Your task to perform on an android device: Open sound settings Image 0: 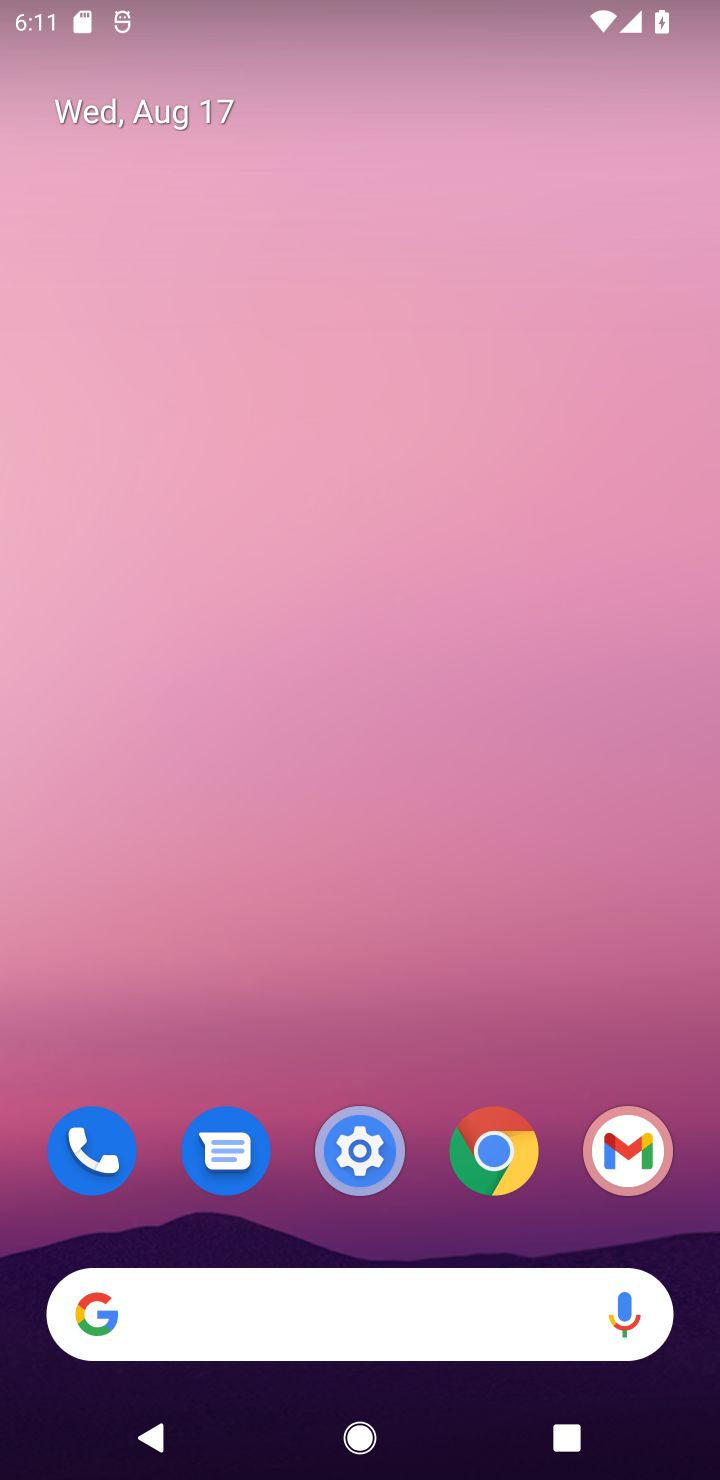
Step 0: click (334, 1142)
Your task to perform on an android device: Open sound settings Image 1: 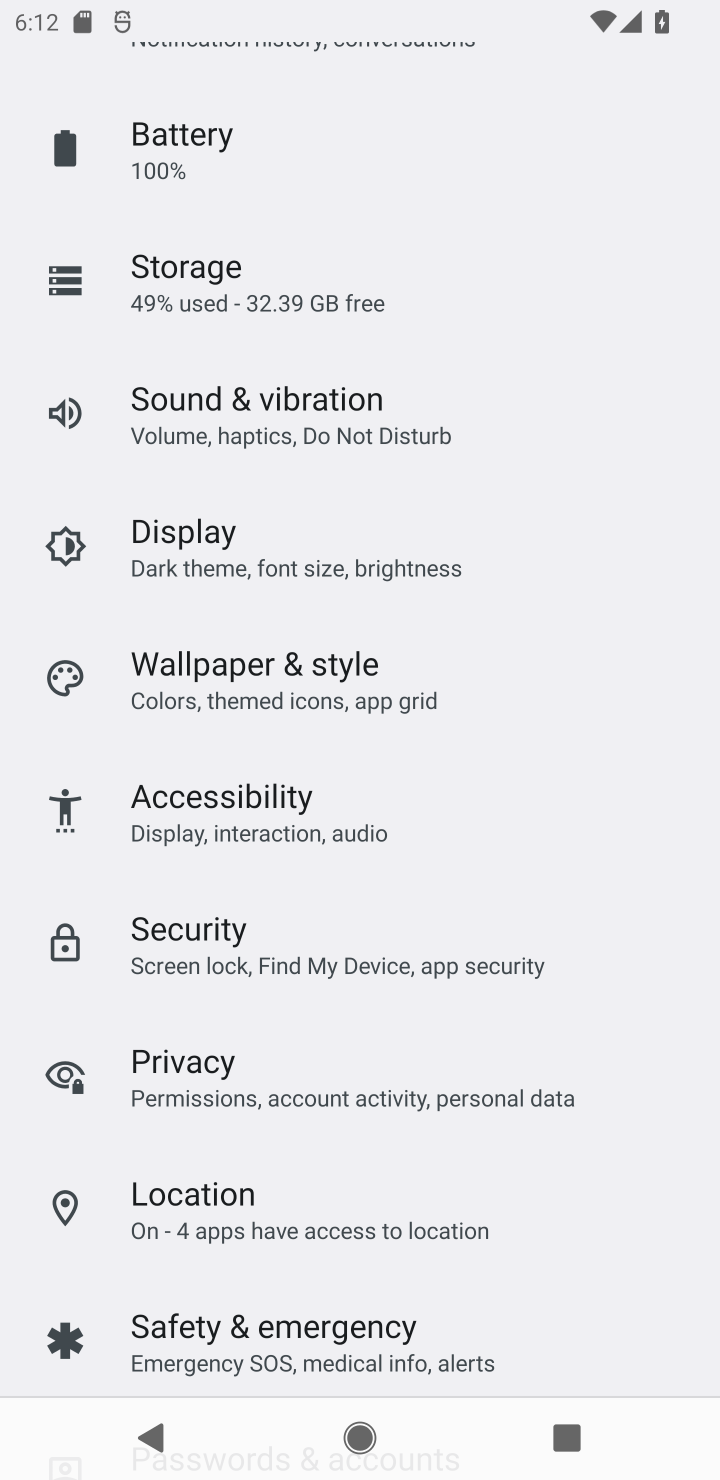
Step 1: drag from (236, 269) to (338, 1328)
Your task to perform on an android device: Open sound settings Image 2: 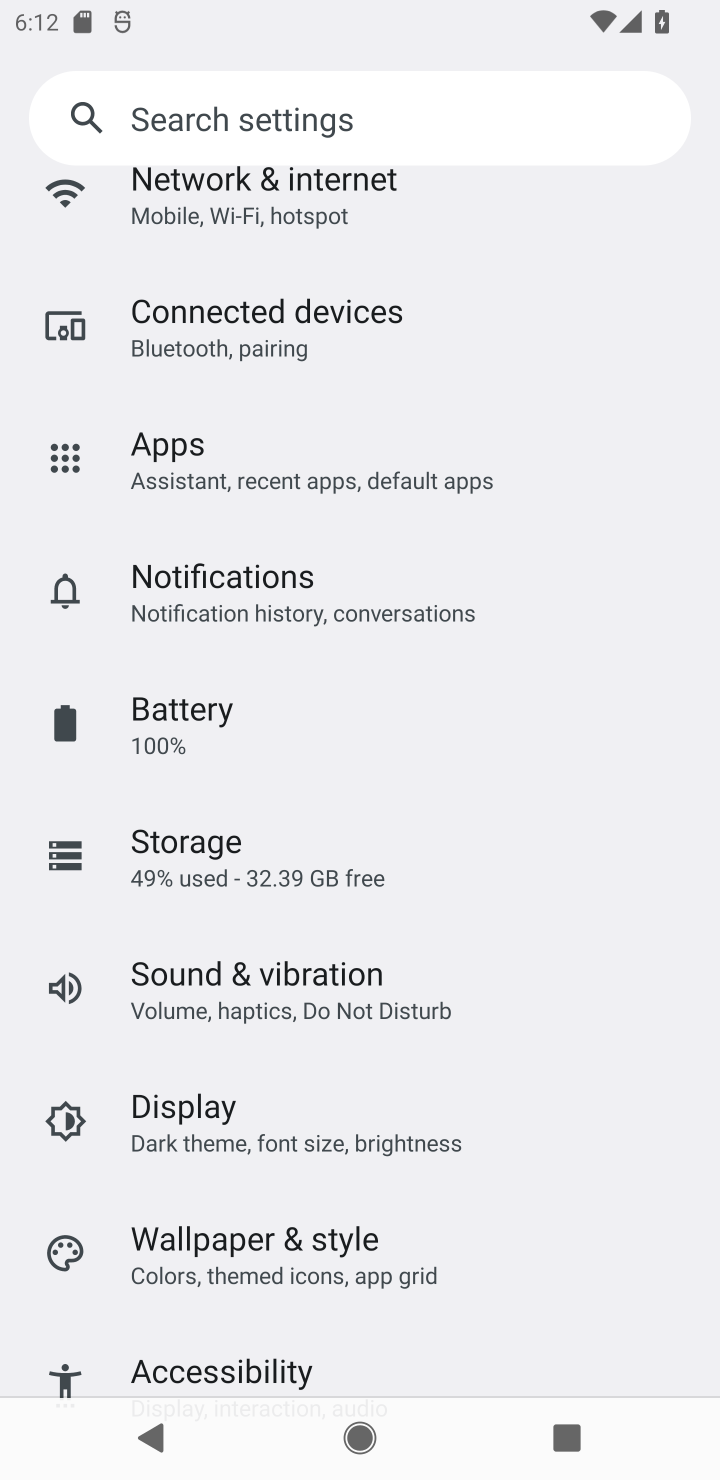
Step 2: drag from (270, 1210) to (367, 1086)
Your task to perform on an android device: Open sound settings Image 3: 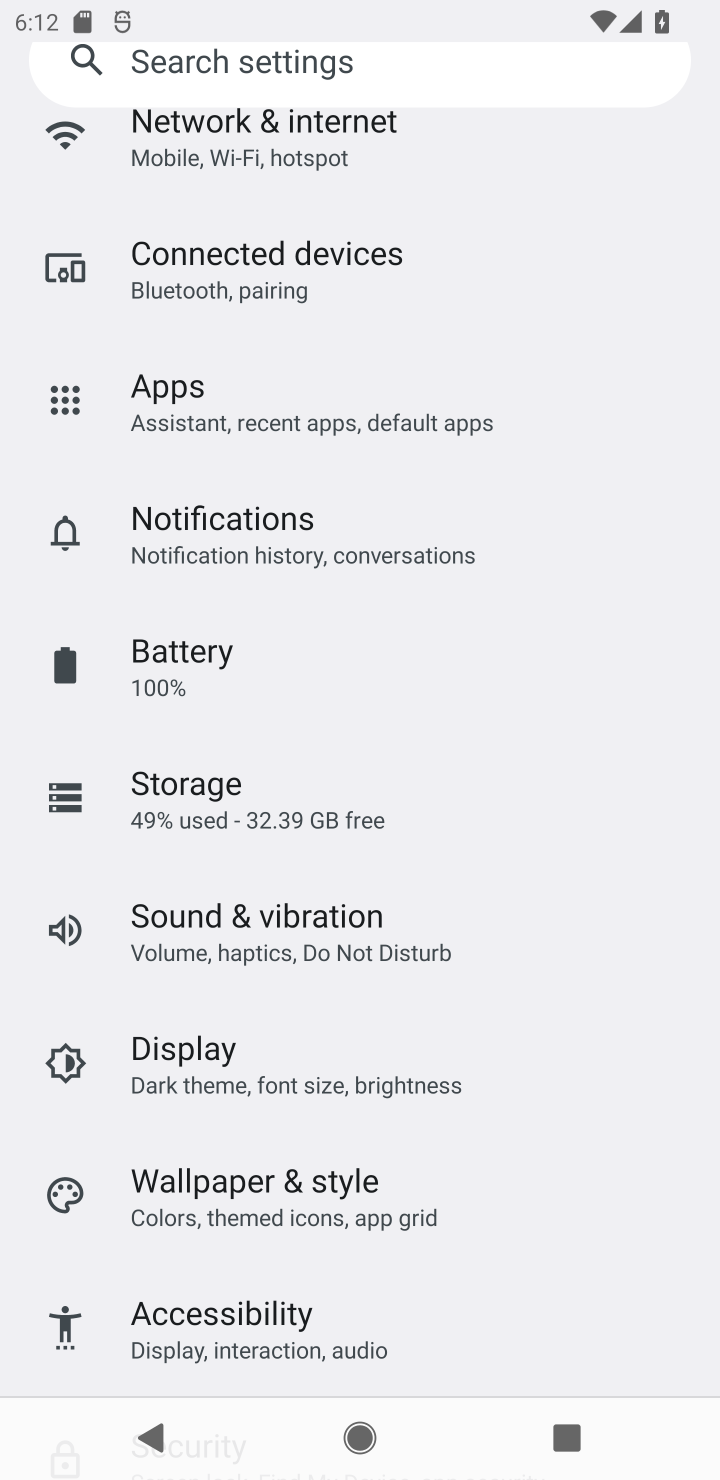
Step 3: click (318, 964)
Your task to perform on an android device: Open sound settings Image 4: 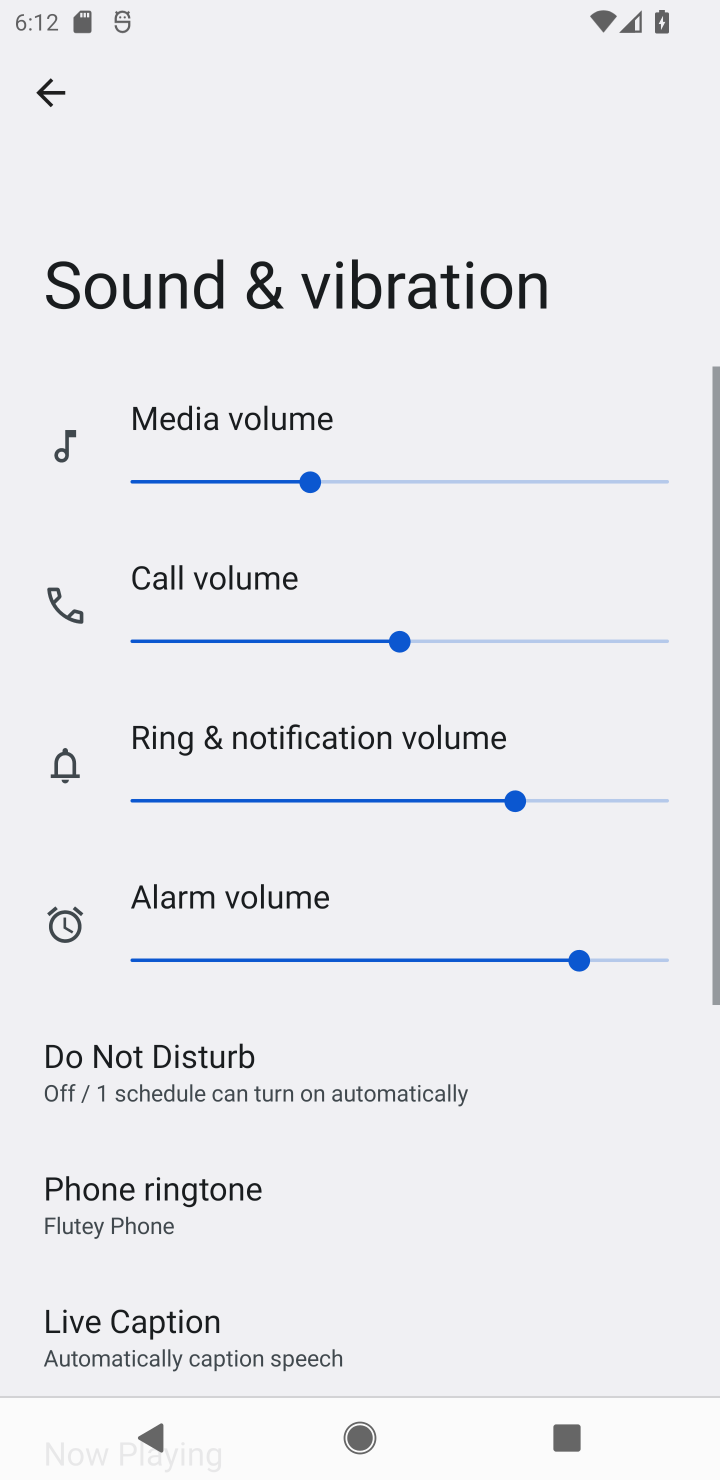
Step 4: task complete